Your task to perform on an android device: Open Yahoo.com Image 0: 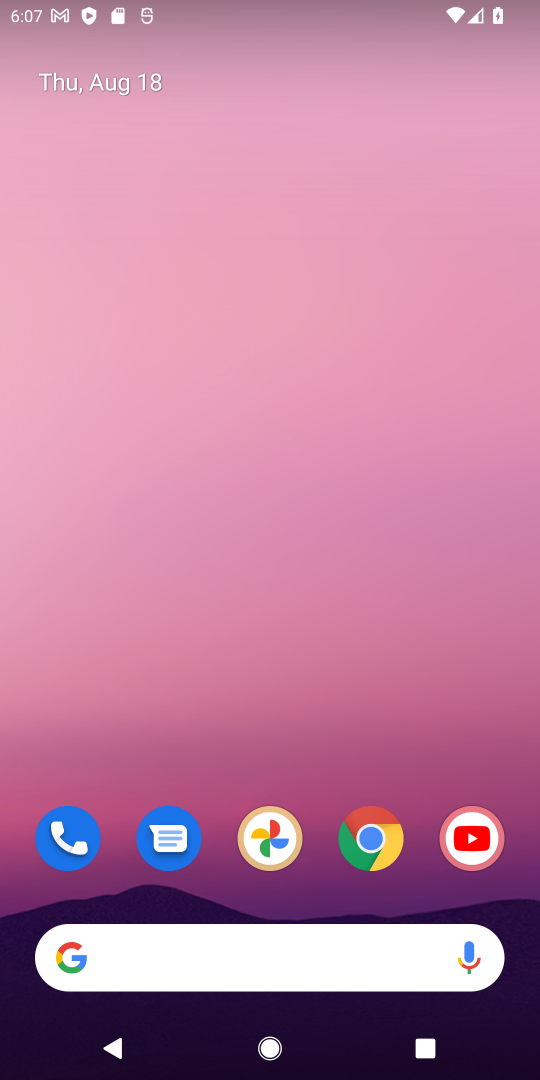
Step 0: press home button
Your task to perform on an android device: Open Yahoo.com Image 1: 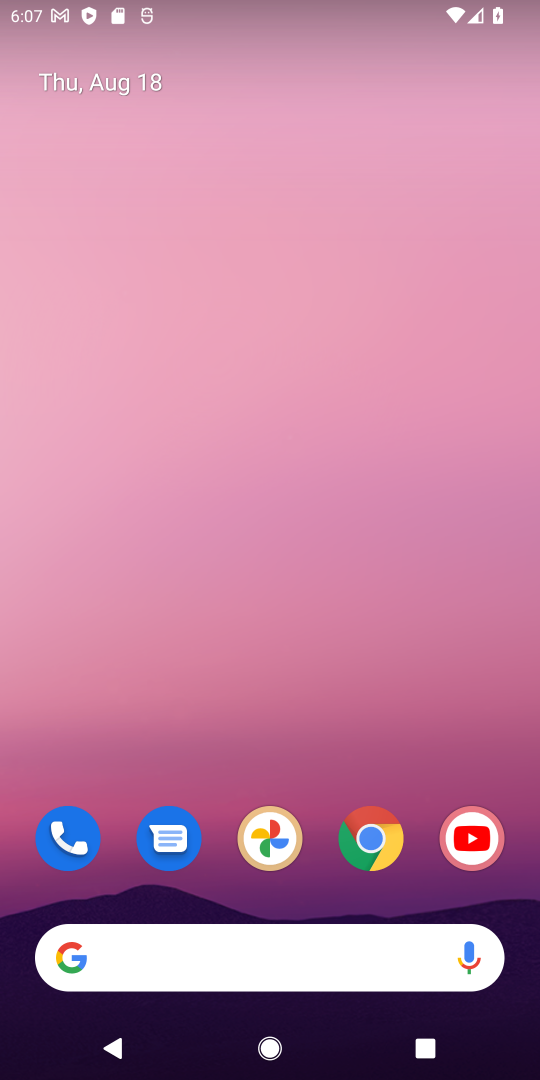
Step 1: click (73, 967)
Your task to perform on an android device: Open Yahoo.com Image 2: 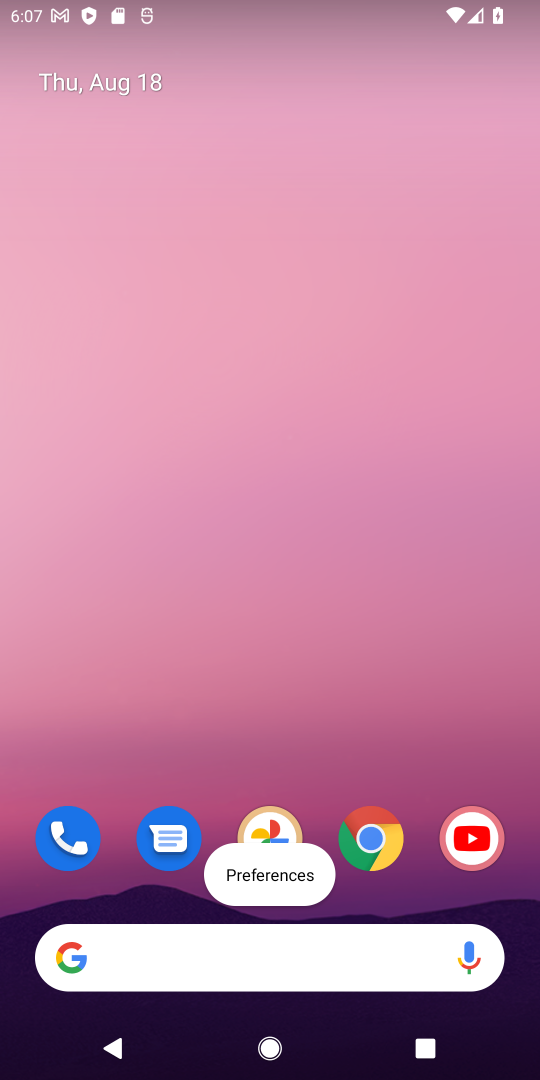
Step 2: click (61, 966)
Your task to perform on an android device: Open Yahoo.com Image 3: 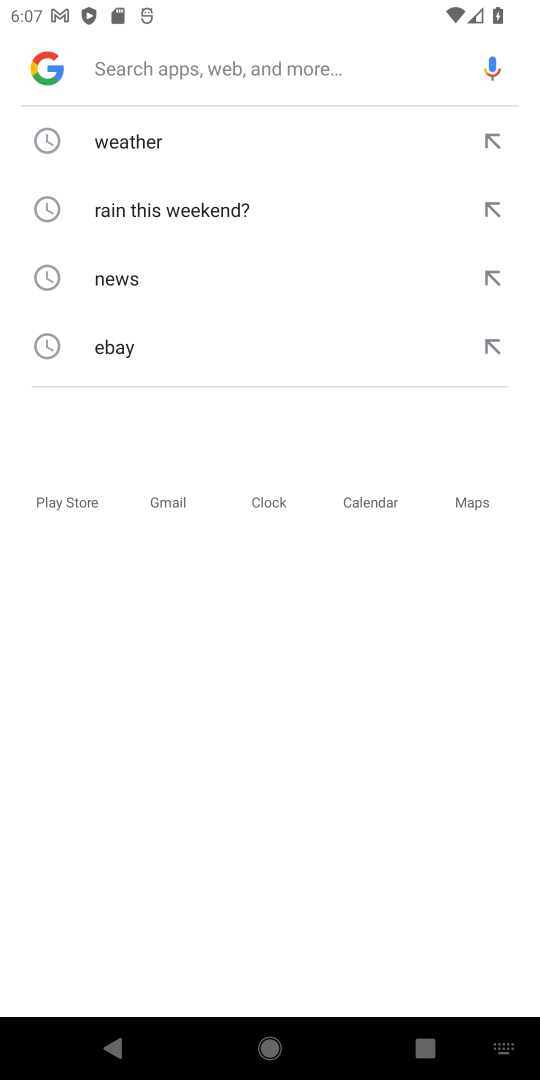
Step 3: type "Yahoo.com"
Your task to perform on an android device: Open Yahoo.com Image 4: 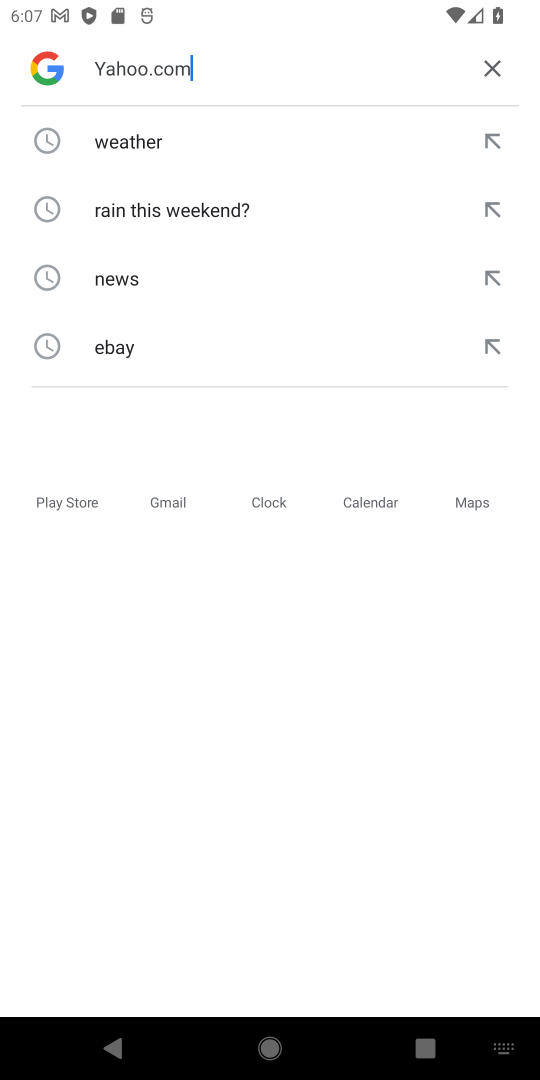
Step 4: press enter
Your task to perform on an android device: Open Yahoo.com Image 5: 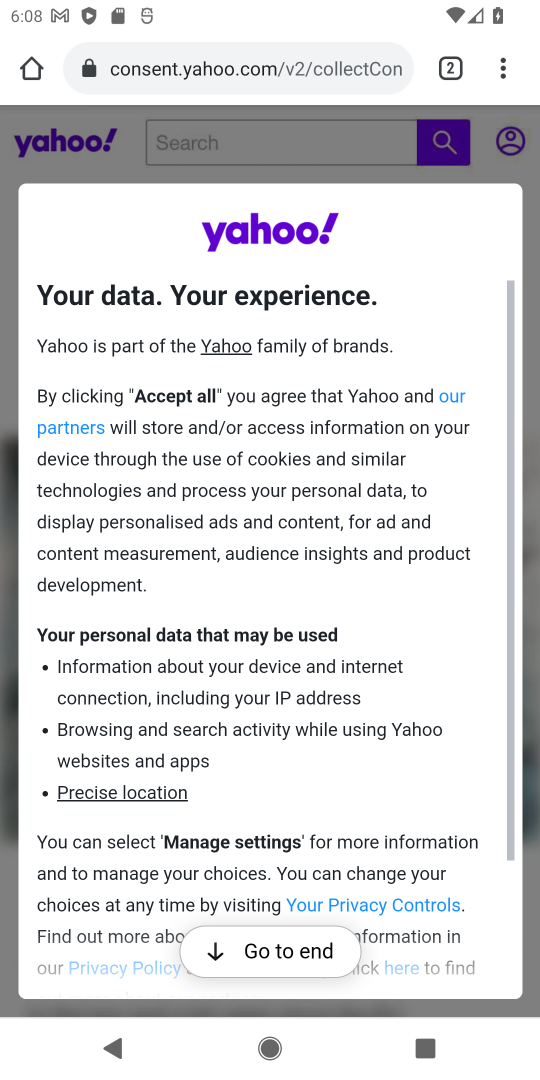
Step 5: click (276, 958)
Your task to perform on an android device: Open Yahoo.com Image 6: 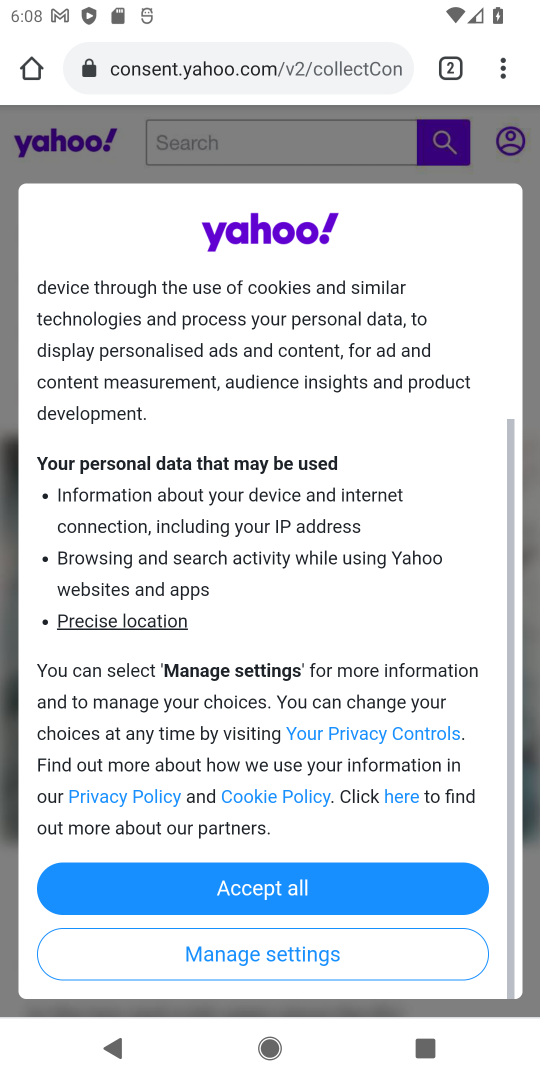
Step 6: click (285, 898)
Your task to perform on an android device: Open Yahoo.com Image 7: 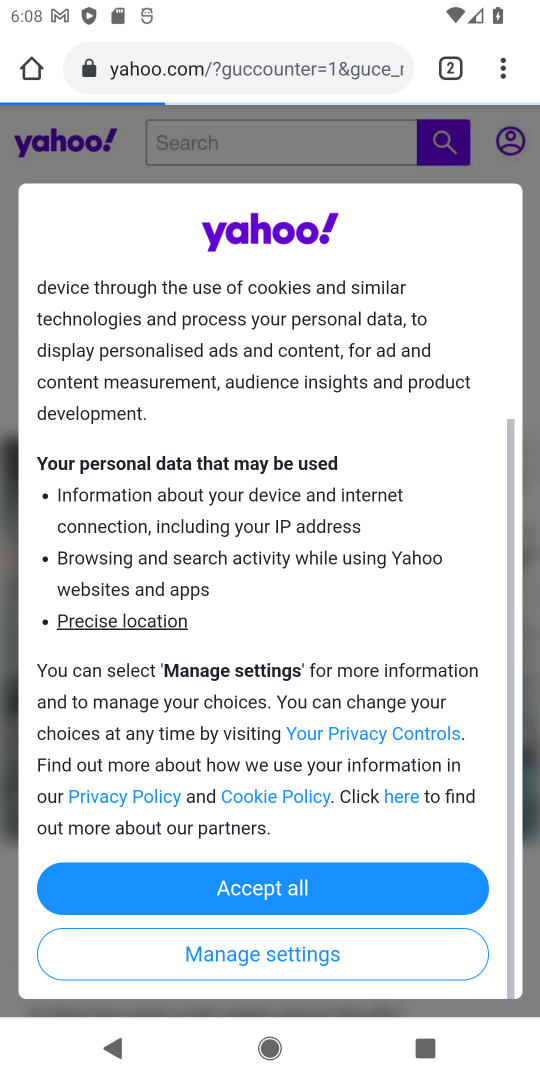
Step 7: click (283, 904)
Your task to perform on an android device: Open Yahoo.com Image 8: 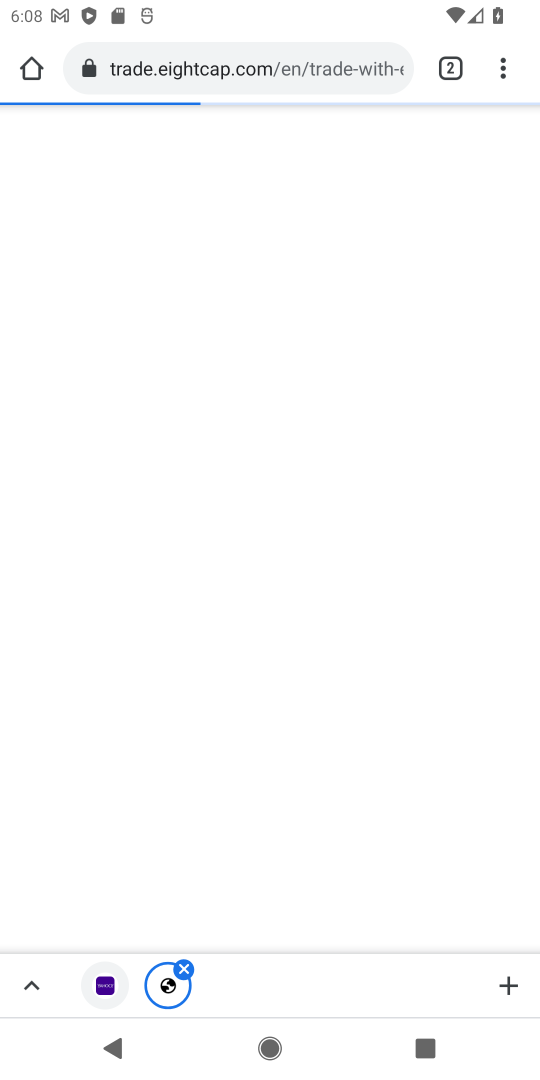
Step 8: task complete